Your task to perform on an android device: Open the calculator app Image 0: 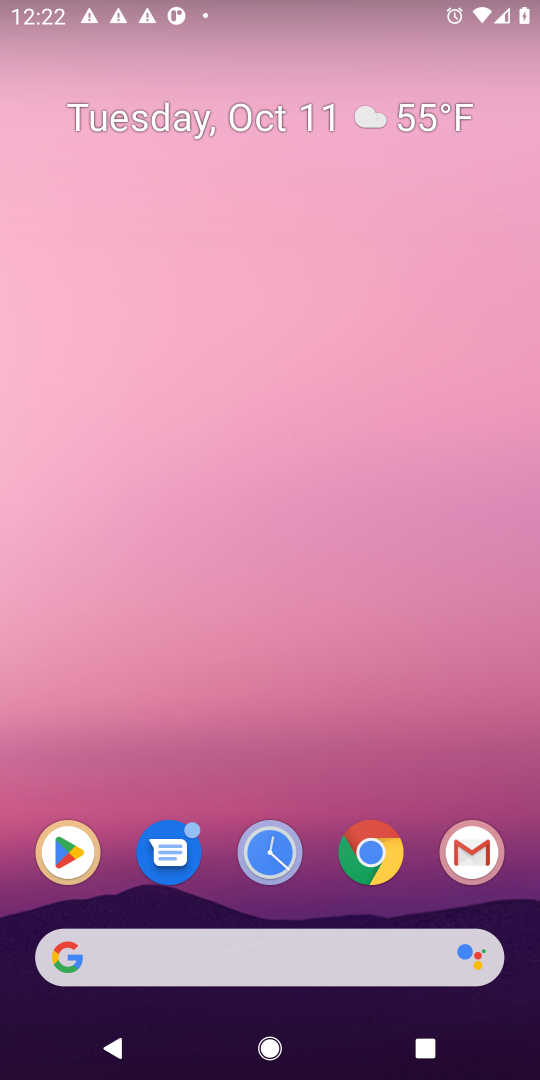
Step 0: drag from (157, 909) to (309, 9)
Your task to perform on an android device: Open the calculator app Image 1: 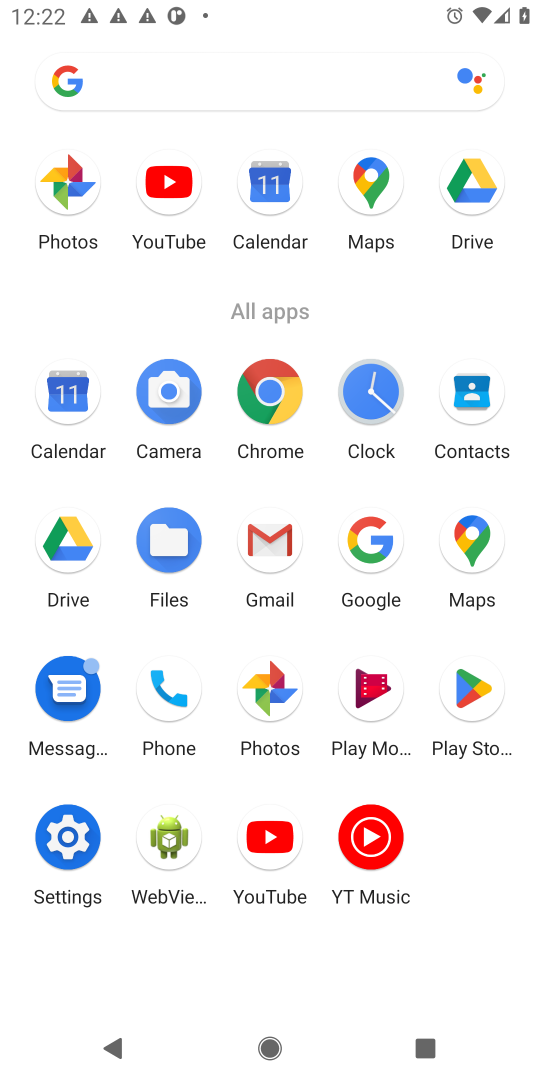
Step 1: click (471, 701)
Your task to perform on an android device: Open the calculator app Image 2: 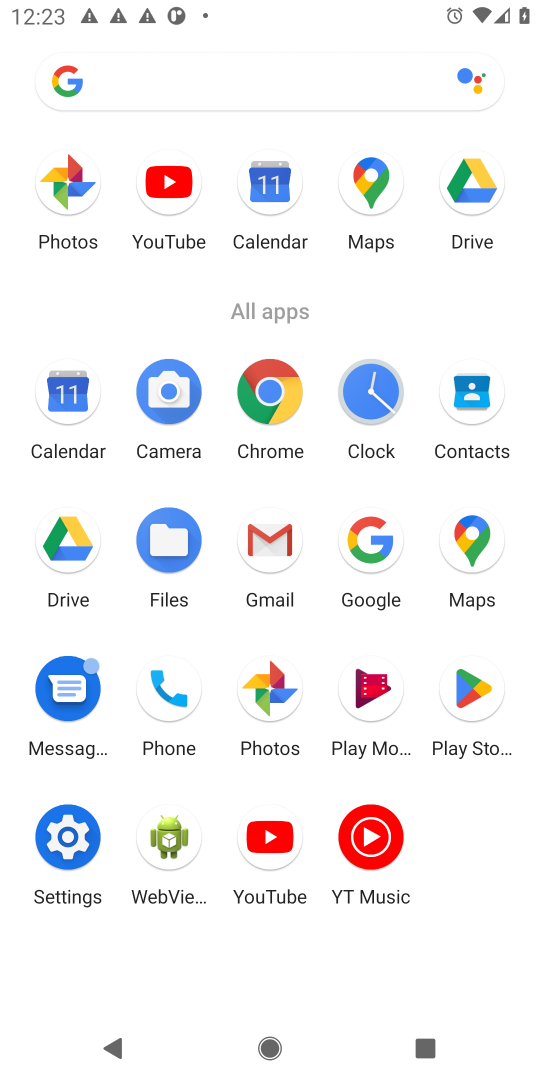
Step 2: click (470, 683)
Your task to perform on an android device: Open the calculator app Image 3: 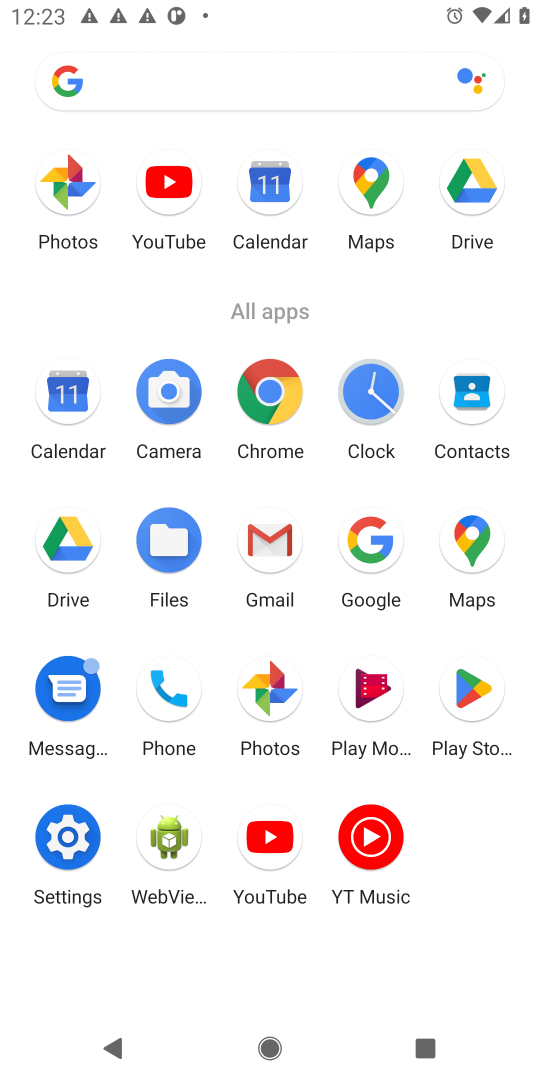
Step 3: click (470, 683)
Your task to perform on an android device: Open the calculator app Image 4: 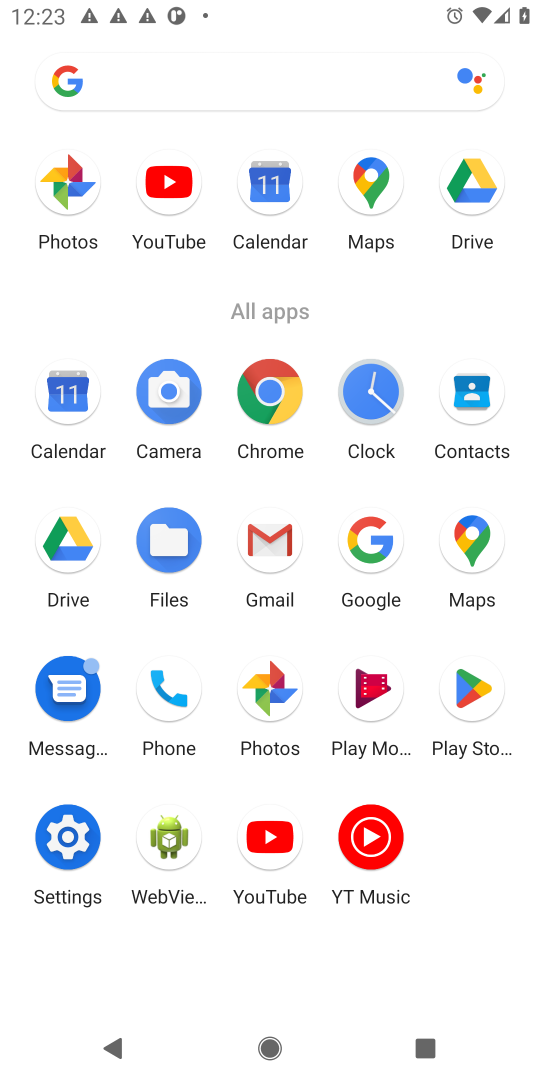
Step 4: click (470, 683)
Your task to perform on an android device: Open the calculator app Image 5: 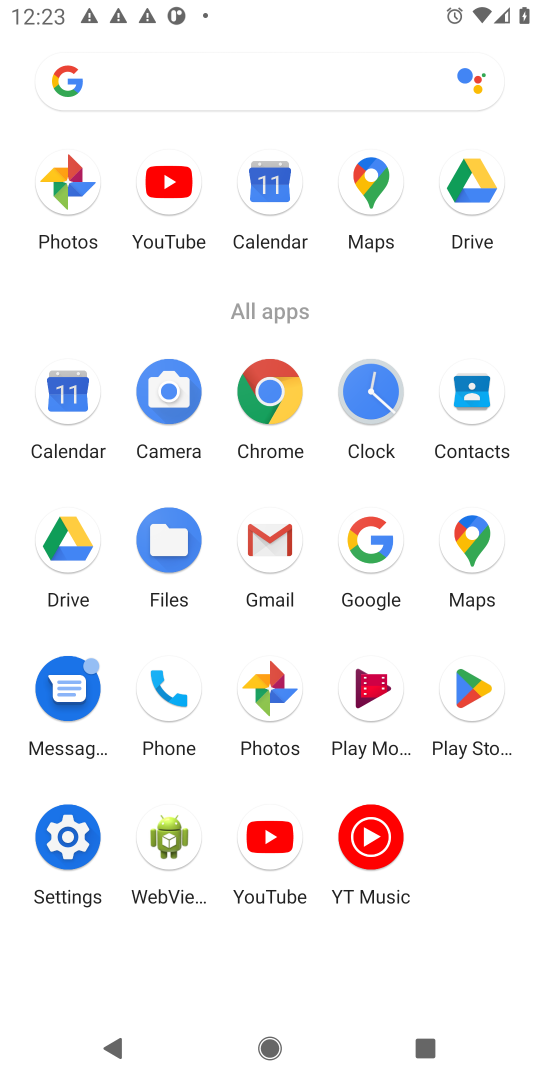
Step 5: click (470, 683)
Your task to perform on an android device: Open the calculator app Image 6: 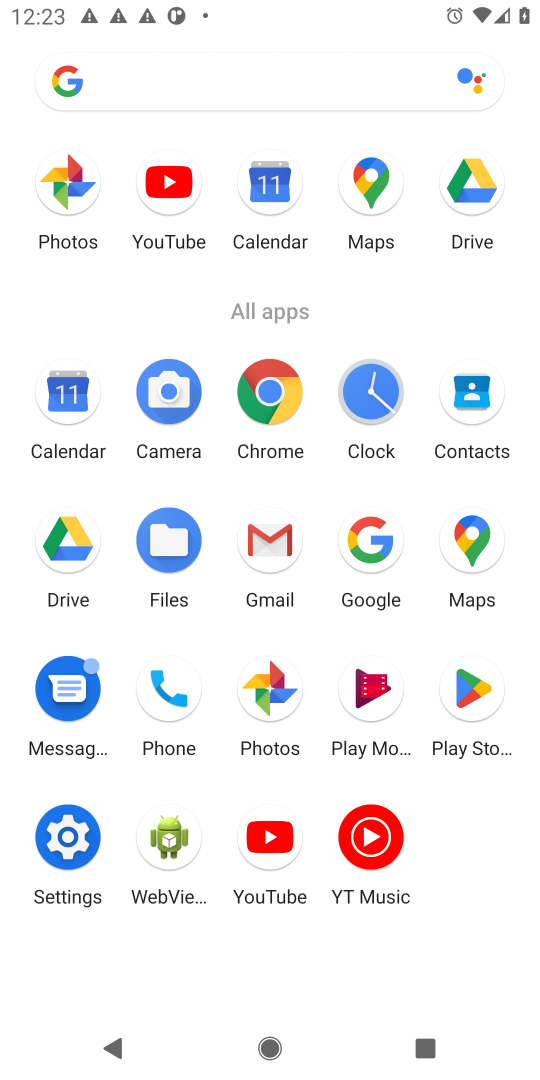
Step 6: click (470, 683)
Your task to perform on an android device: Open the calculator app Image 7: 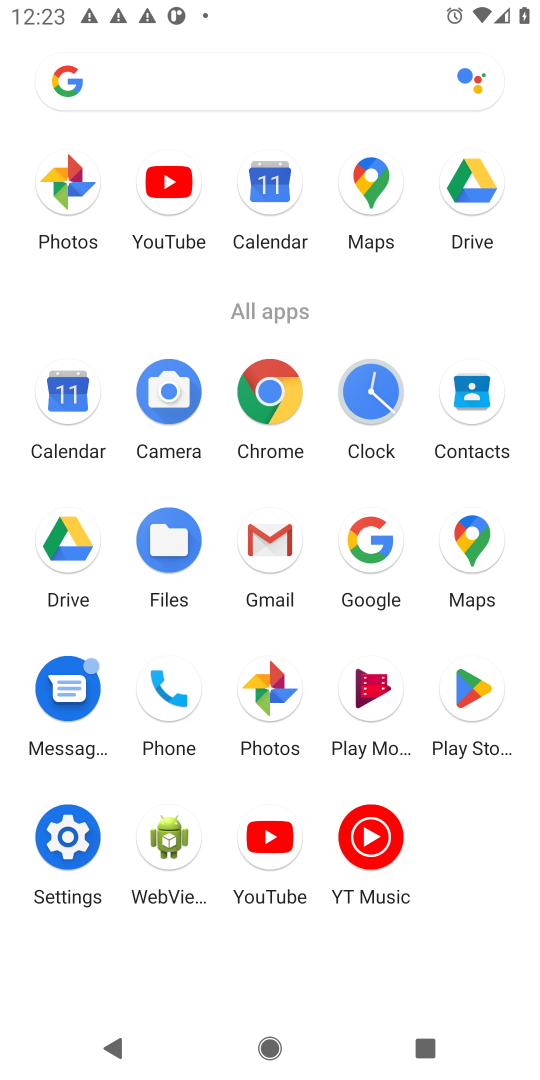
Step 7: click (470, 683)
Your task to perform on an android device: Open the calculator app Image 8: 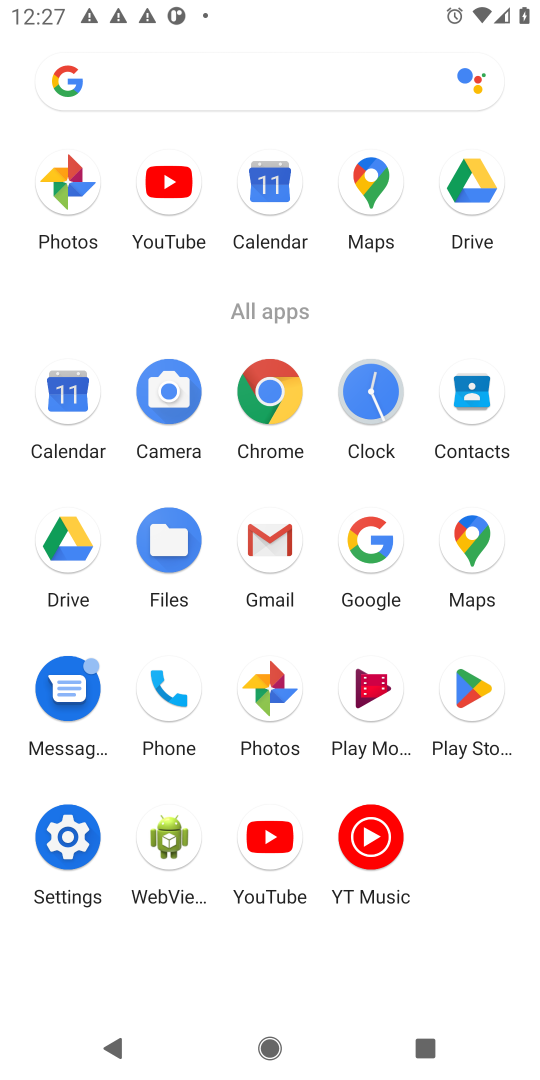
Step 8: task complete